Your task to perform on an android device: refresh tabs in the chrome app Image 0: 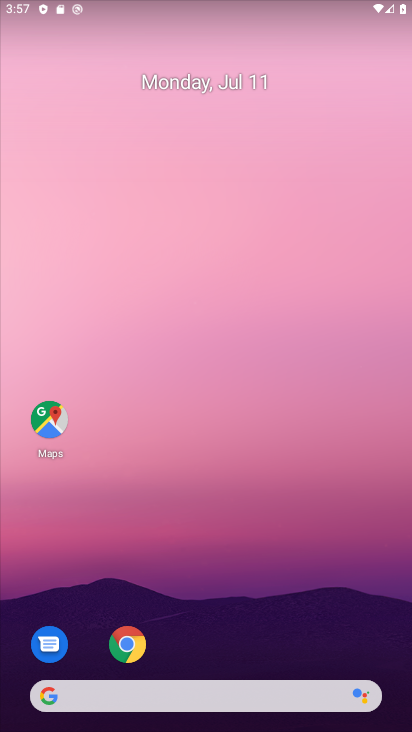
Step 0: click (125, 647)
Your task to perform on an android device: refresh tabs in the chrome app Image 1: 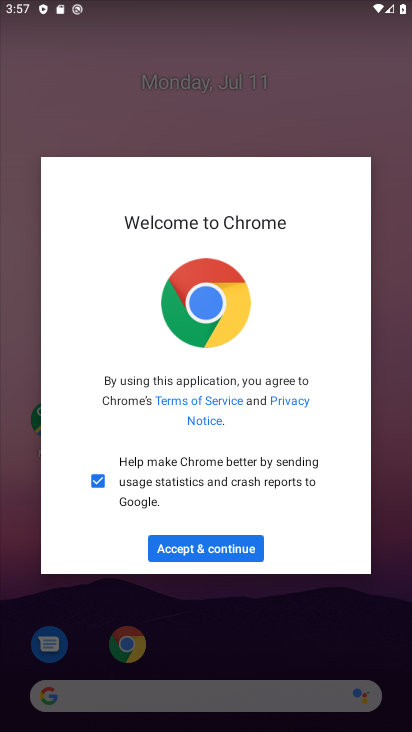
Step 1: click (216, 545)
Your task to perform on an android device: refresh tabs in the chrome app Image 2: 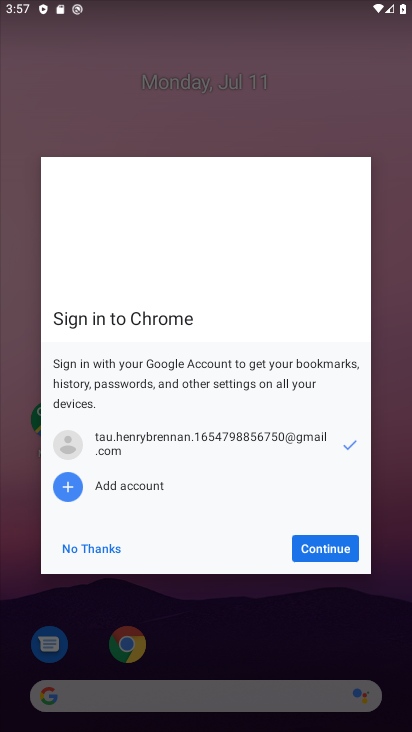
Step 2: click (309, 541)
Your task to perform on an android device: refresh tabs in the chrome app Image 3: 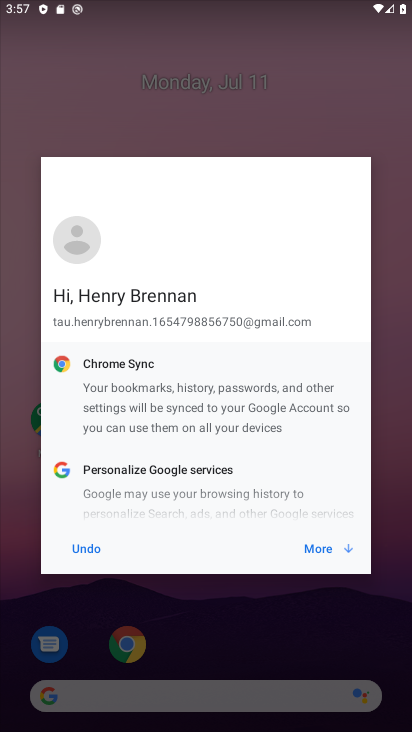
Step 3: click (309, 541)
Your task to perform on an android device: refresh tabs in the chrome app Image 4: 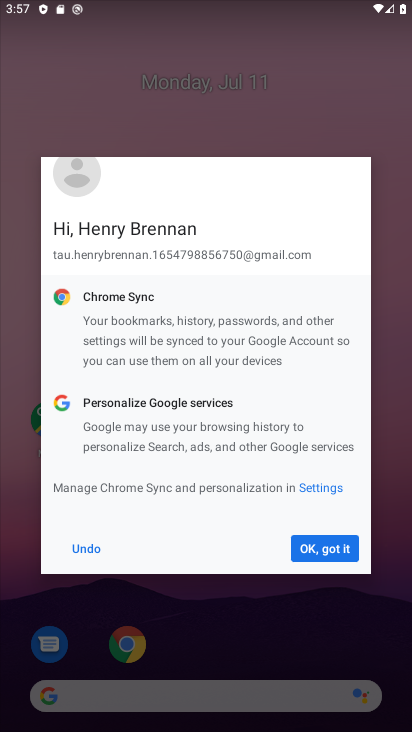
Step 4: click (309, 541)
Your task to perform on an android device: refresh tabs in the chrome app Image 5: 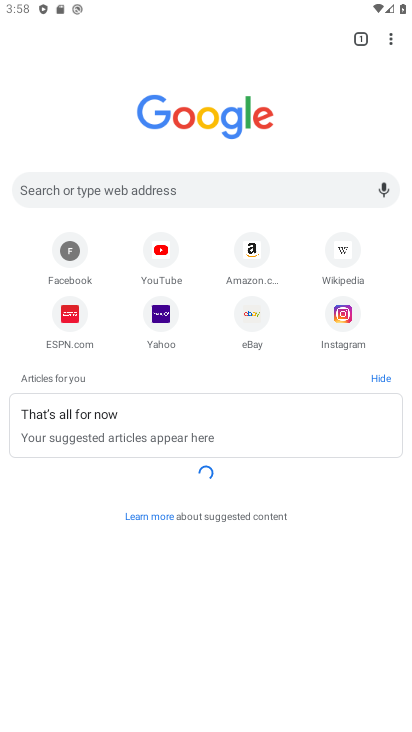
Step 5: click (392, 44)
Your task to perform on an android device: refresh tabs in the chrome app Image 6: 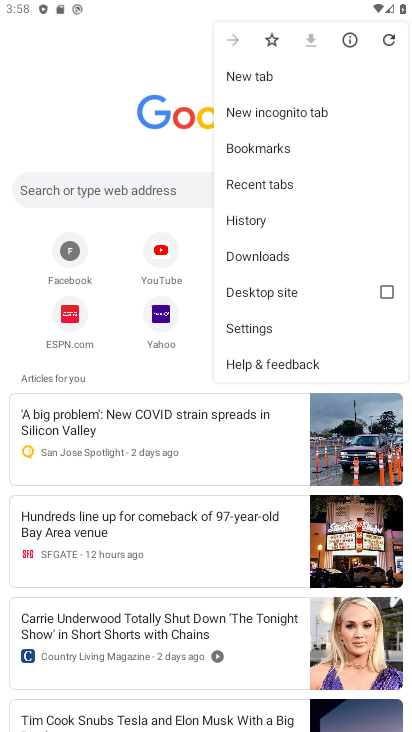
Step 6: click (384, 42)
Your task to perform on an android device: refresh tabs in the chrome app Image 7: 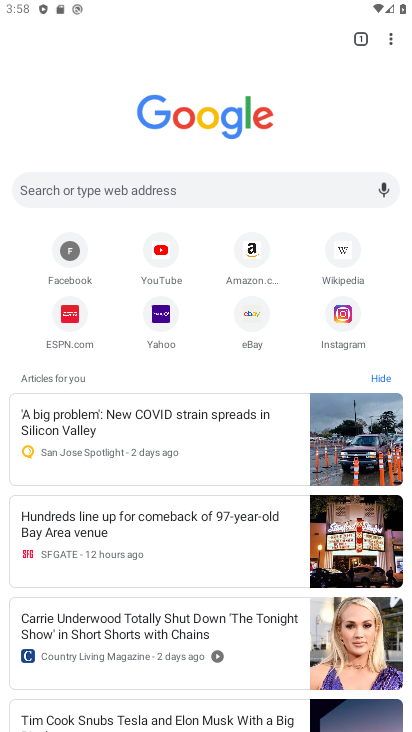
Step 7: task complete